Your task to perform on an android device: toggle notifications settings in the gmail app Image 0: 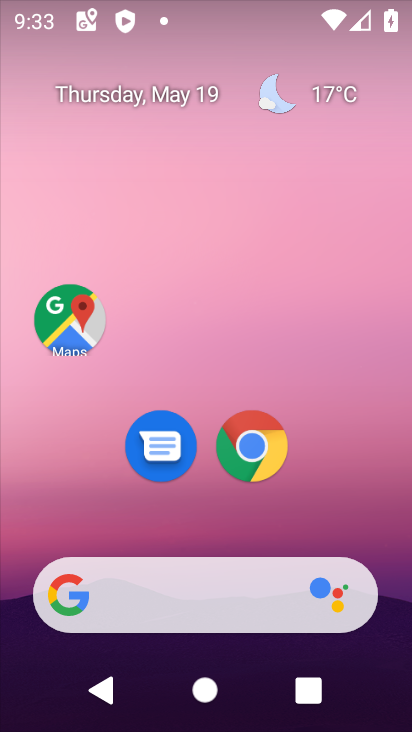
Step 0: drag from (202, 514) to (250, 9)
Your task to perform on an android device: toggle notifications settings in the gmail app Image 1: 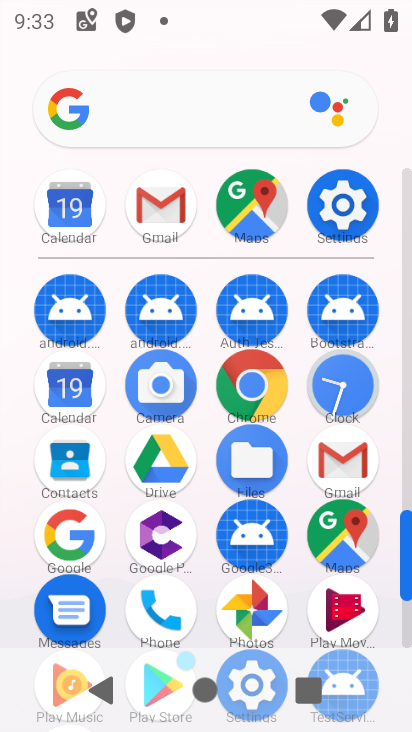
Step 1: click (347, 459)
Your task to perform on an android device: toggle notifications settings in the gmail app Image 2: 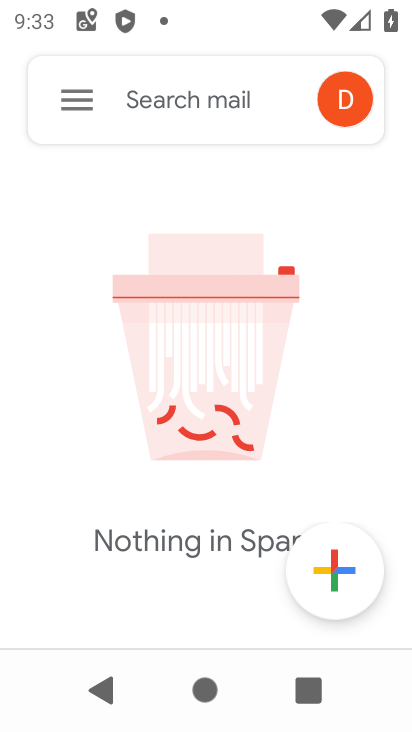
Step 2: click (72, 101)
Your task to perform on an android device: toggle notifications settings in the gmail app Image 3: 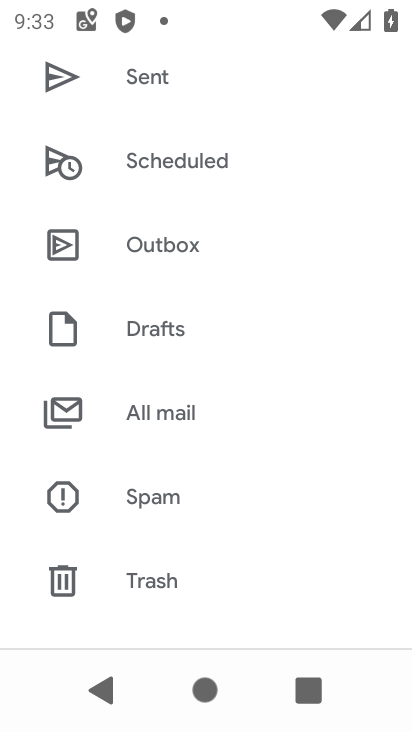
Step 3: drag from (146, 524) to (185, 250)
Your task to perform on an android device: toggle notifications settings in the gmail app Image 4: 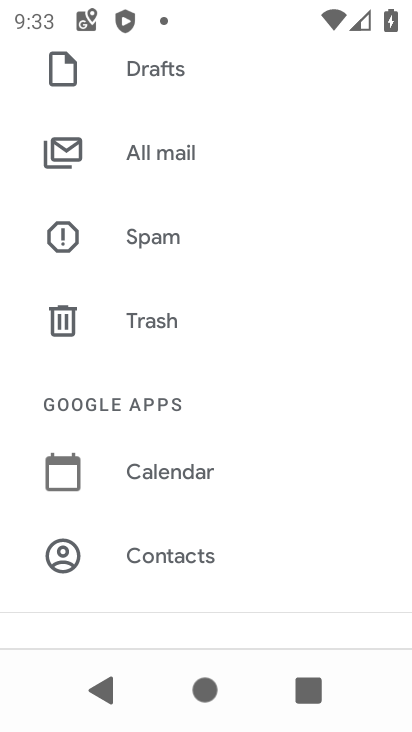
Step 4: drag from (163, 564) to (204, 207)
Your task to perform on an android device: toggle notifications settings in the gmail app Image 5: 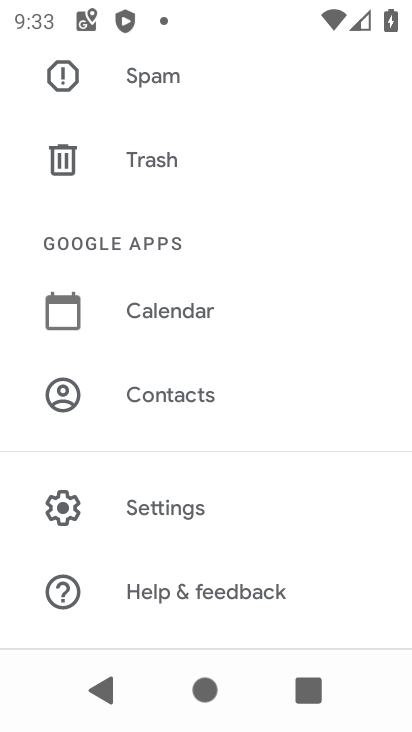
Step 5: click (179, 513)
Your task to perform on an android device: toggle notifications settings in the gmail app Image 6: 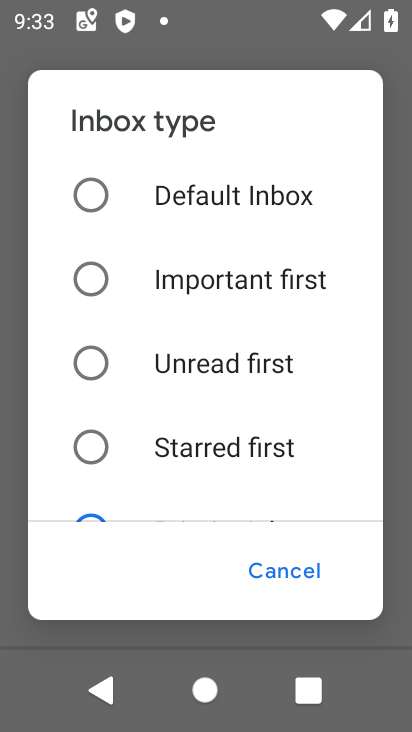
Step 6: click (264, 581)
Your task to perform on an android device: toggle notifications settings in the gmail app Image 7: 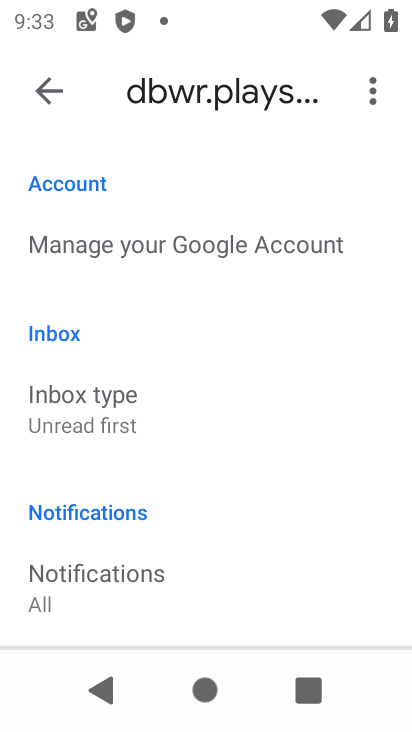
Step 7: click (61, 89)
Your task to perform on an android device: toggle notifications settings in the gmail app Image 8: 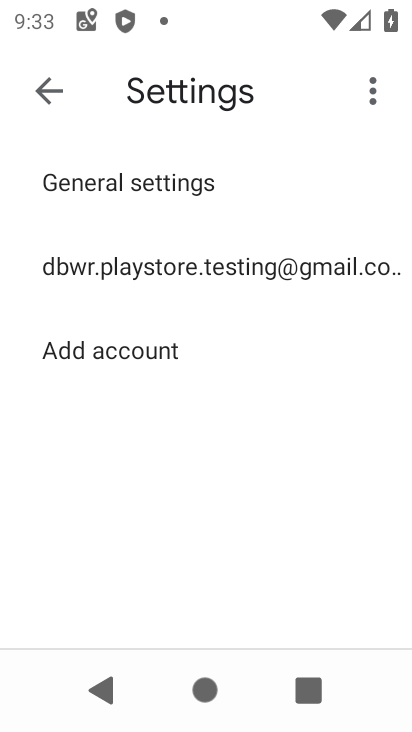
Step 8: click (129, 200)
Your task to perform on an android device: toggle notifications settings in the gmail app Image 9: 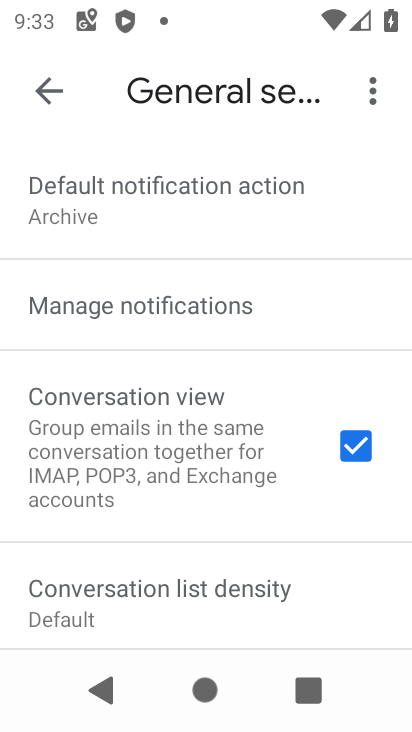
Step 9: click (154, 307)
Your task to perform on an android device: toggle notifications settings in the gmail app Image 10: 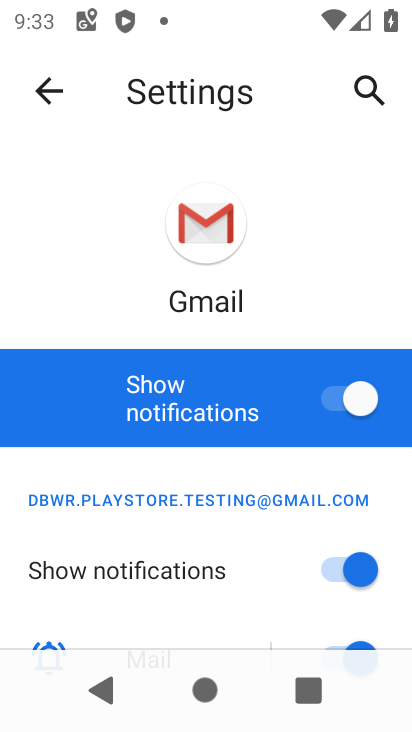
Step 10: click (321, 402)
Your task to perform on an android device: toggle notifications settings in the gmail app Image 11: 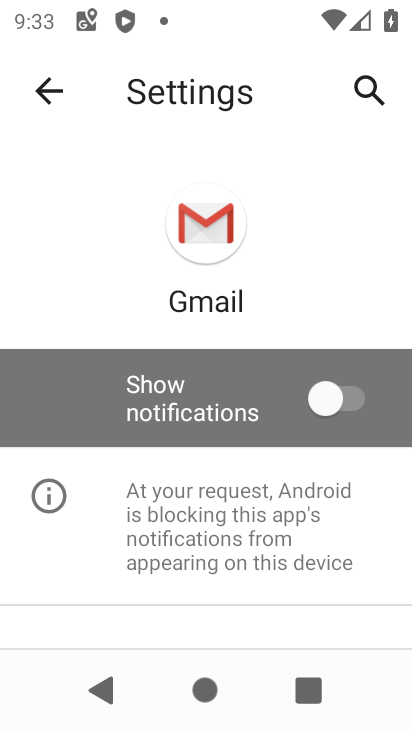
Step 11: task complete